Your task to perform on an android device: open a bookmark in the chrome app Image 0: 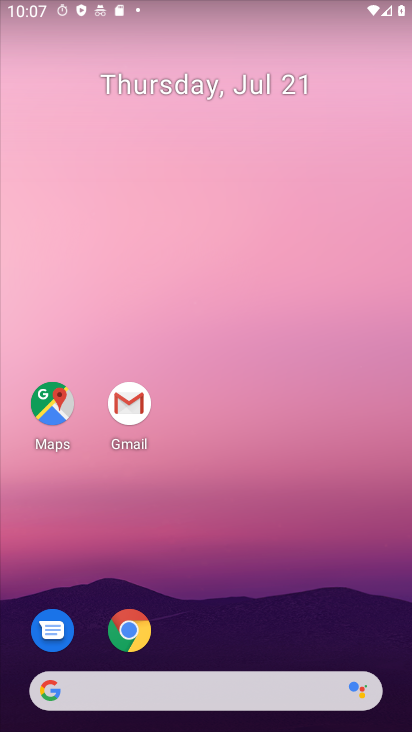
Step 0: click (230, 289)
Your task to perform on an android device: open a bookmark in the chrome app Image 1: 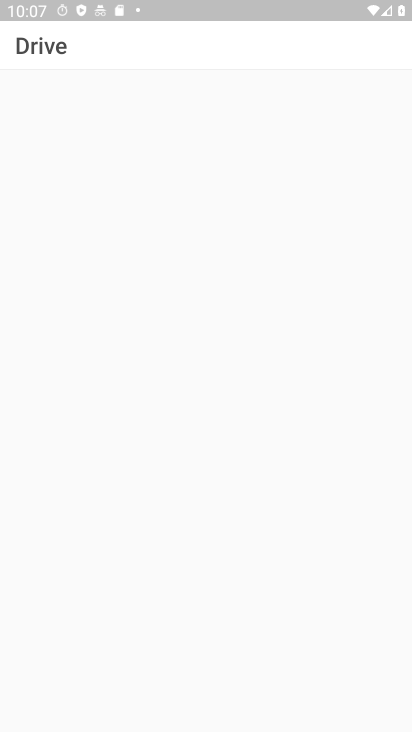
Step 1: press back button
Your task to perform on an android device: open a bookmark in the chrome app Image 2: 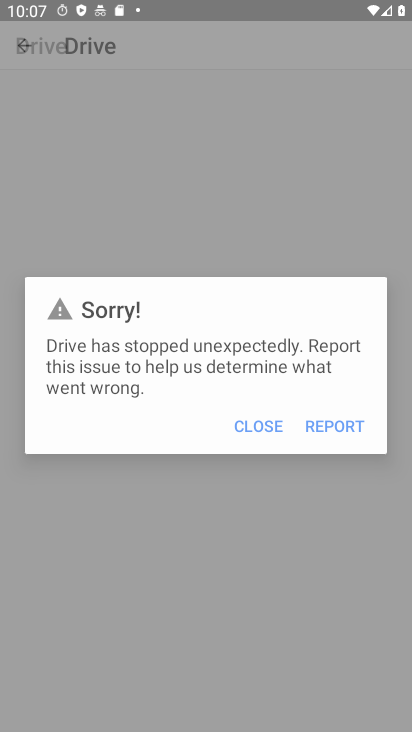
Step 2: press home button
Your task to perform on an android device: open a bookmark in the chrome app Image 3: 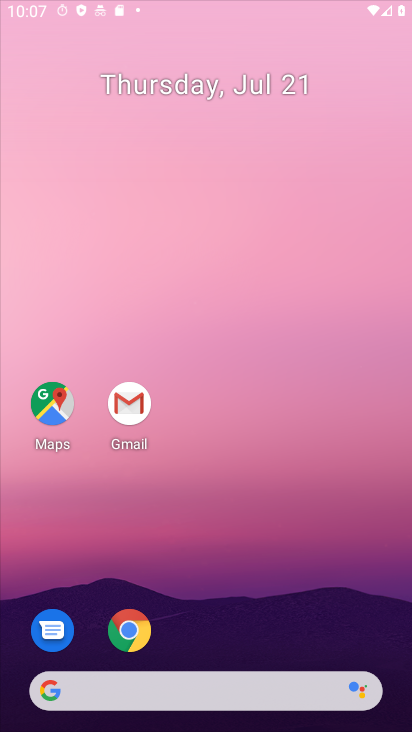
Step 3: click (270, 424)
Your task to perform on an android device: open a bookmark in the chrome app Image 4: 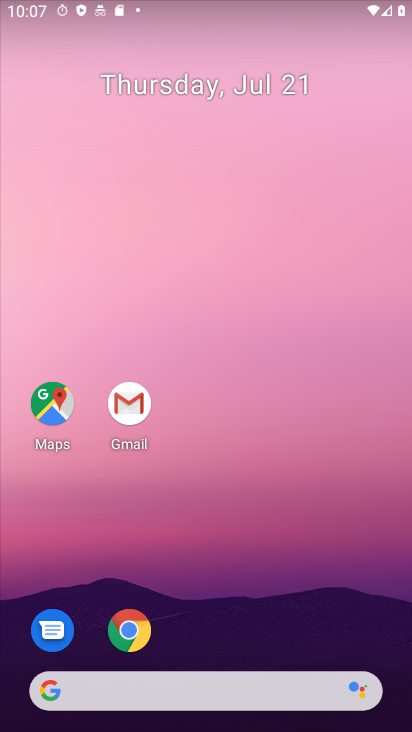
Step 4: drag from (238, 597) to (210, 193)
Your task to perform on an android device: open a bookmark in the chrome app Image 5: 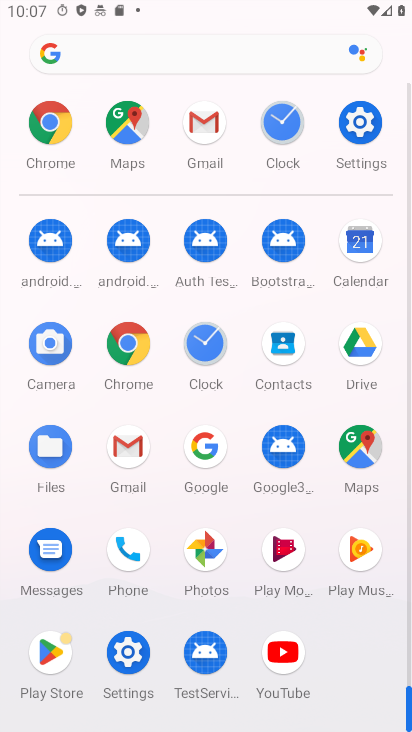
Step 5: click (42, 117)
Your task to perform on an android device: open a bookmark in the chrome app Image 6: 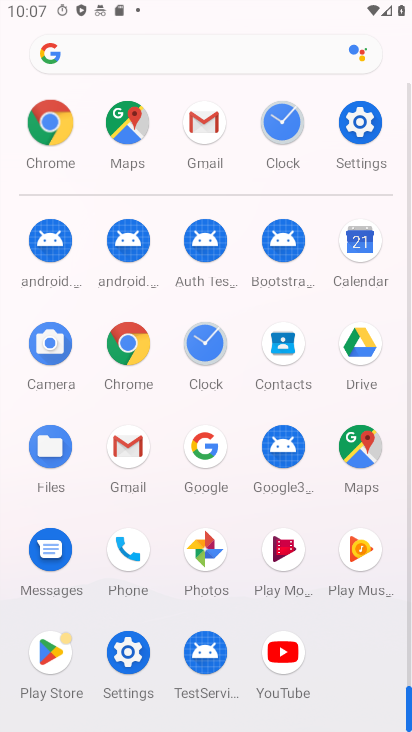
Step 6: click (39, 119)
Your task to perform on an android device: open a bookmark in the chrome app Image 7: 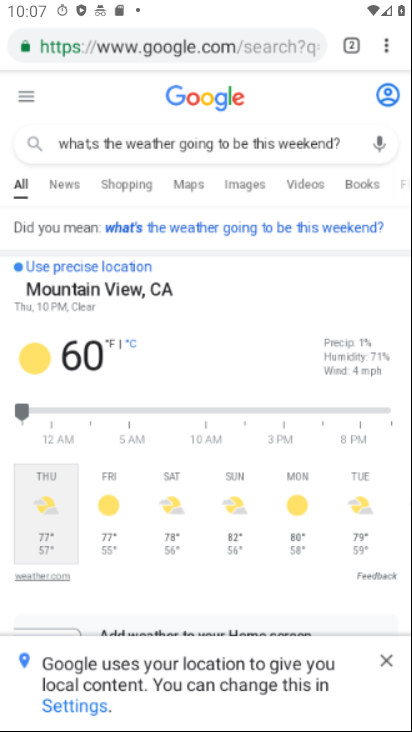
Step 7: click (388, 52)
Your task to perform on an android device: open a bookmark in the chrome app Image 8: 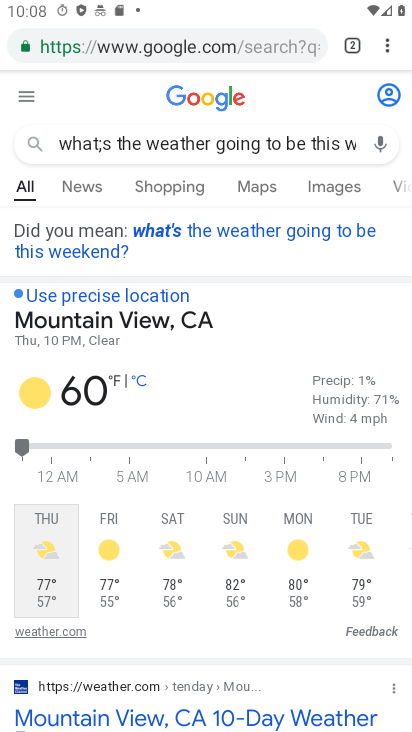
Step 8: drag from (385, 45) to (224, 166)
Your task to perform on an android device: open a bookmark in the chrome app Image 9: 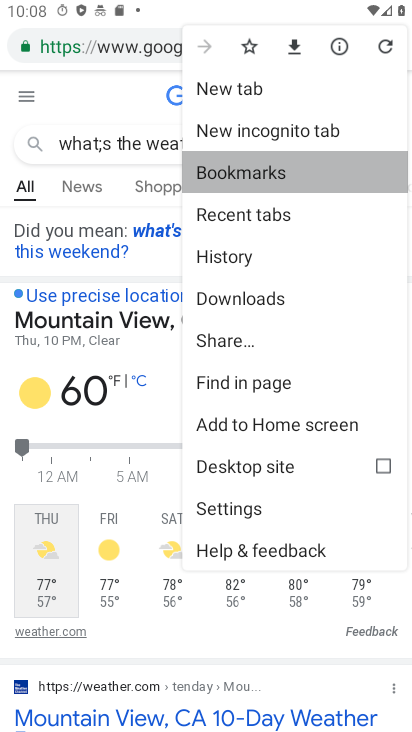
Step 9: click (224, 166)
Your task to perform on an android device: open a bookmark in the chrome app Image 10: 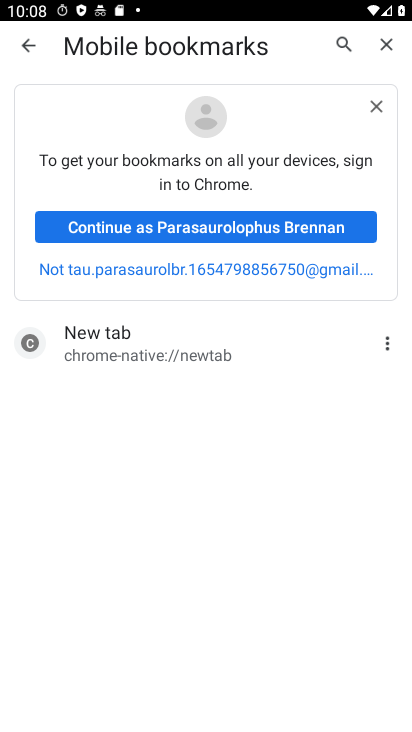
Step 10: click (368, 101)
Your task to perform on an android device: open a bookmark in the chrome app Image 11: 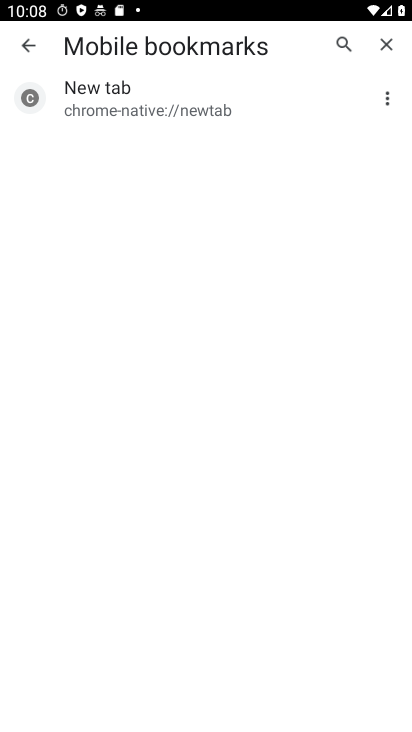
Step 11: task complete